Your task to perform on an android device: Open network settings Image 0: 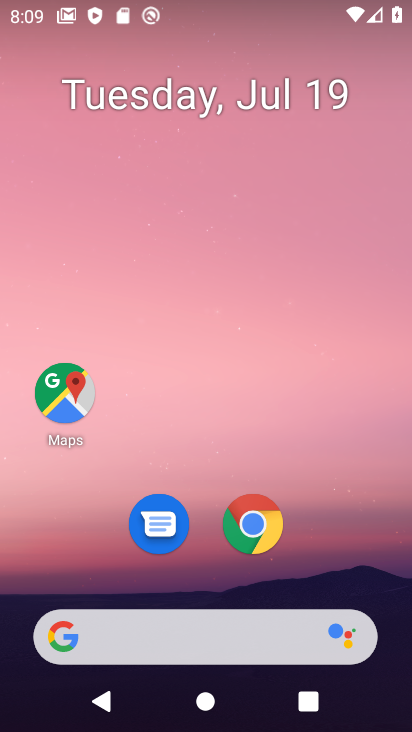
Step 0: drag from (209, 652) to (323, 102)
Your task to perform on an android device: Open network settings Image 1: 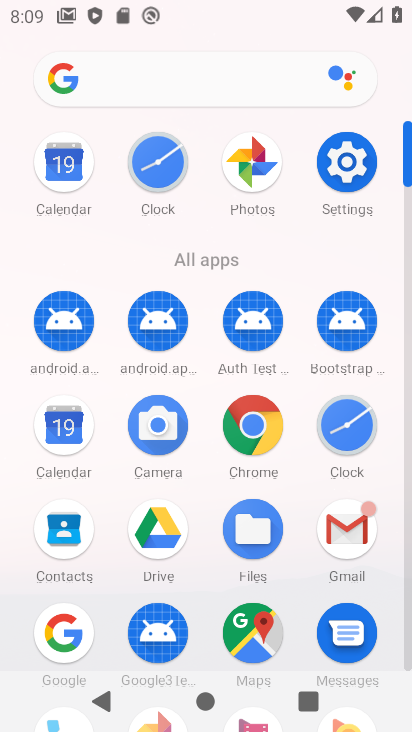
Step 1: click (349, 160)
Your task to perform on an android device: Open network settings Image 2: 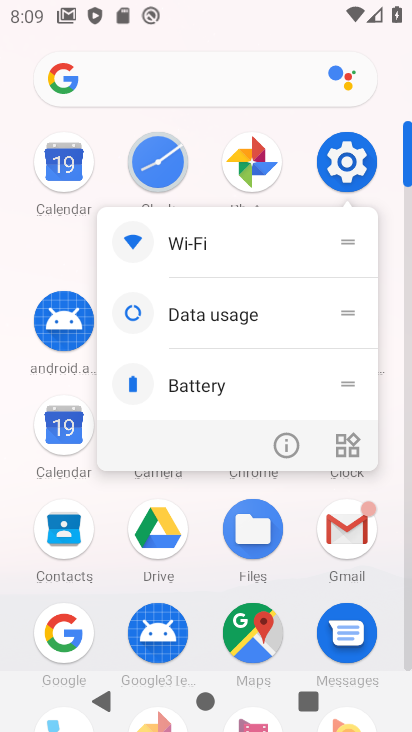
Step 2: click (350, 172)
Your task to perform on an android device: Open network settings Image 3: 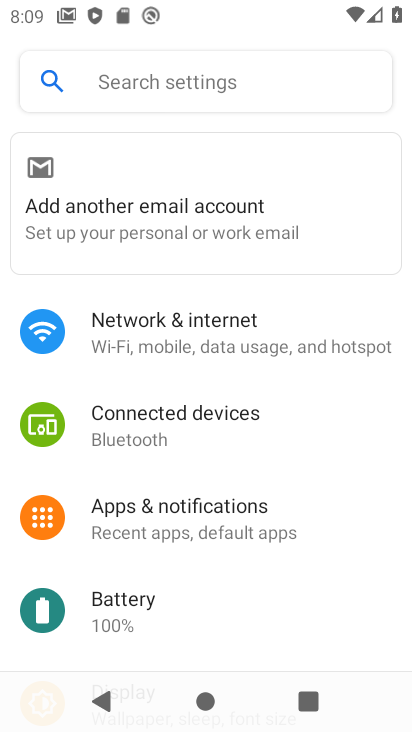
Step 3: click (210, 319)
Your task to perform on an android device: Open network settings Image 4: 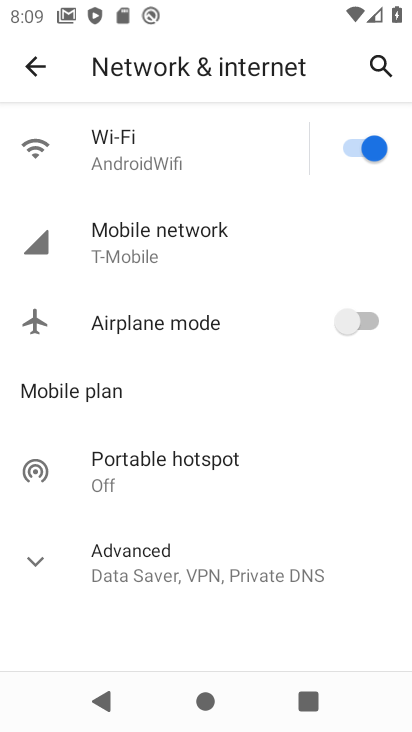
Step 4: click (153, 235)
Your task to perform on an android device: Open network settings Image 5: 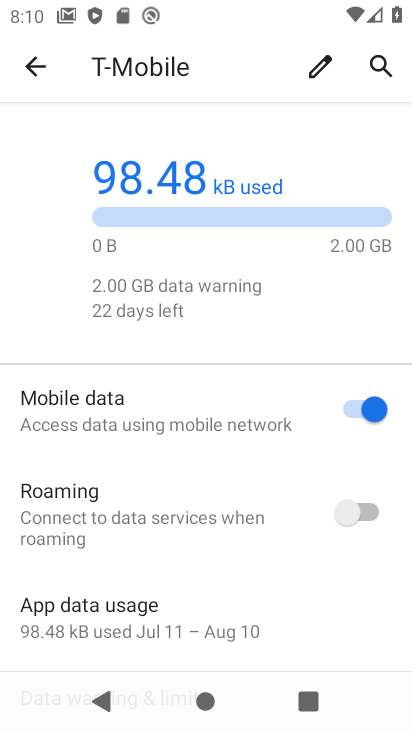
Step 5: task complete